Your task to perform on an android device: turn on sleep mode Image 0: 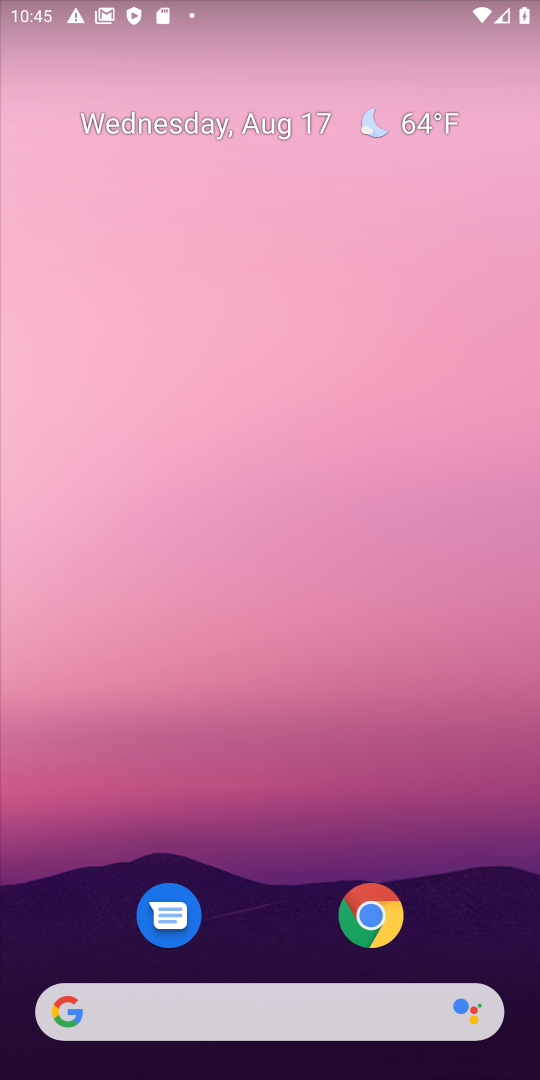
Step 0: drag from (278, 917) to (249, 168)
Your task to perform on an android device: turn on sleep mode Image 1: 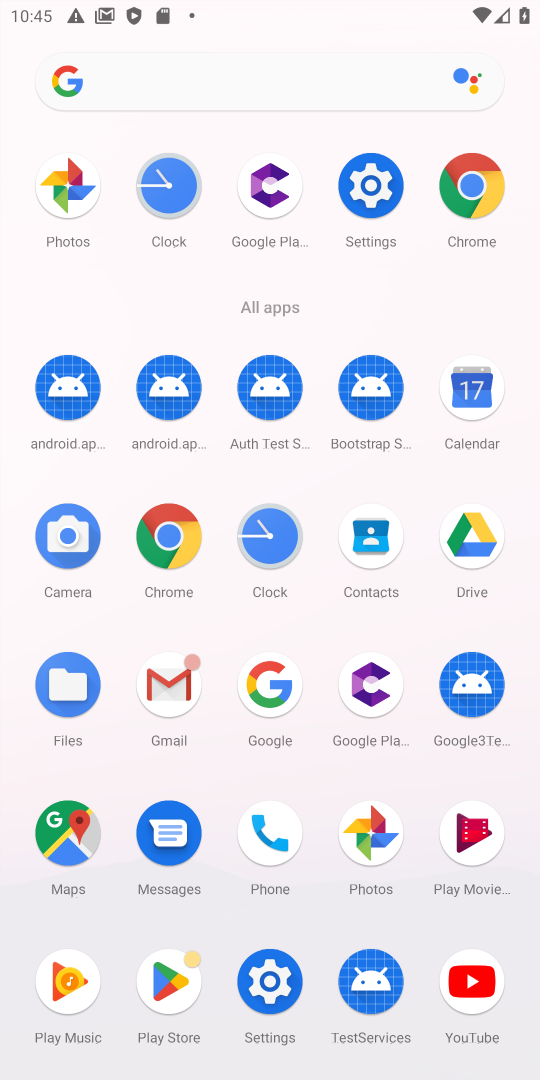
Step 1: click (377, 185)
Your task to perform on an android device: turn on sleep mode Image 2: 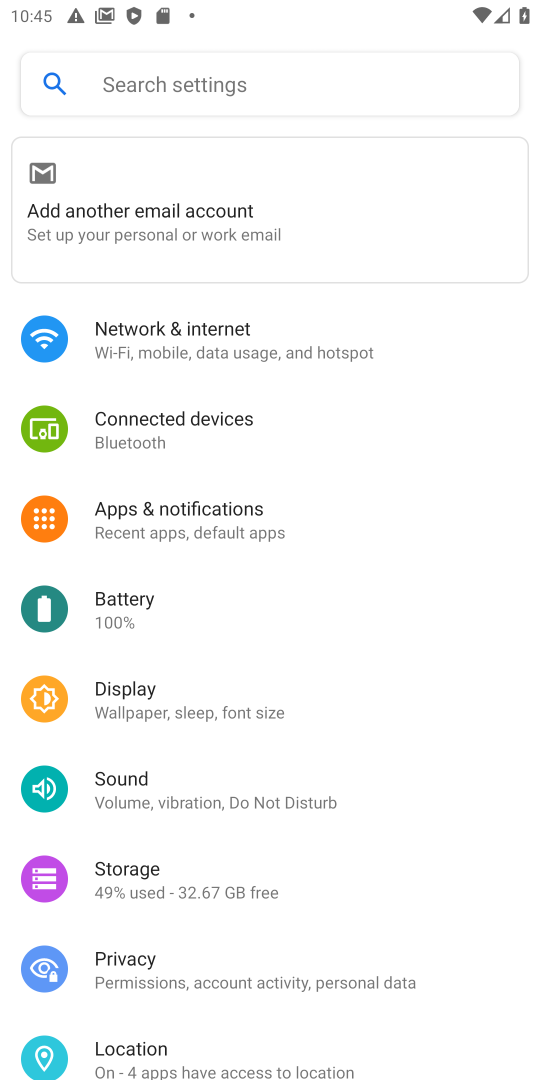
Step 2: click (134, 698)
Your task to perform on an android device: turn on sleep mode Image 3: 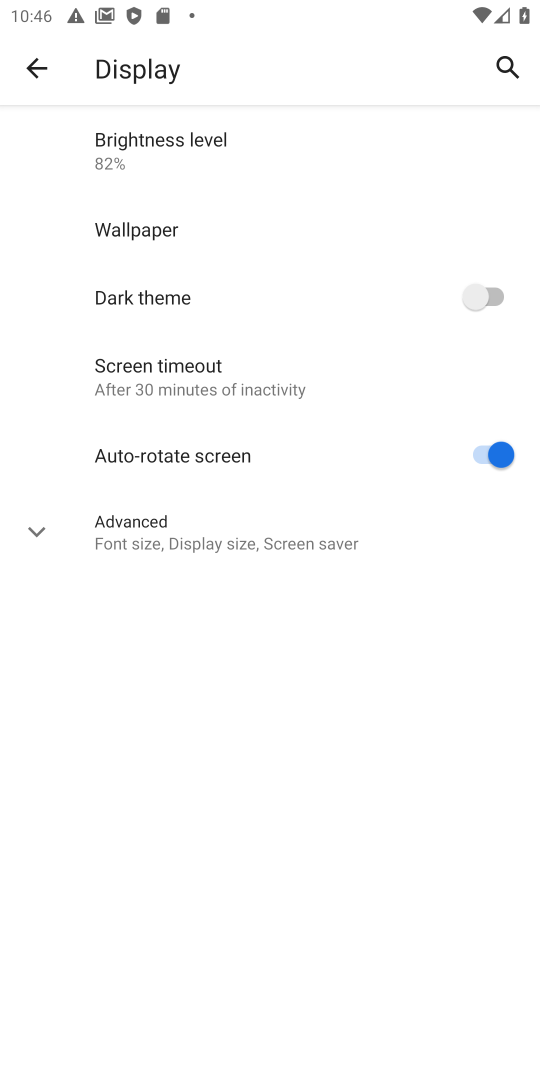
Step 3: task complete